Your task to perform on an android device: Open Chrome and go to the settings page Image 0: 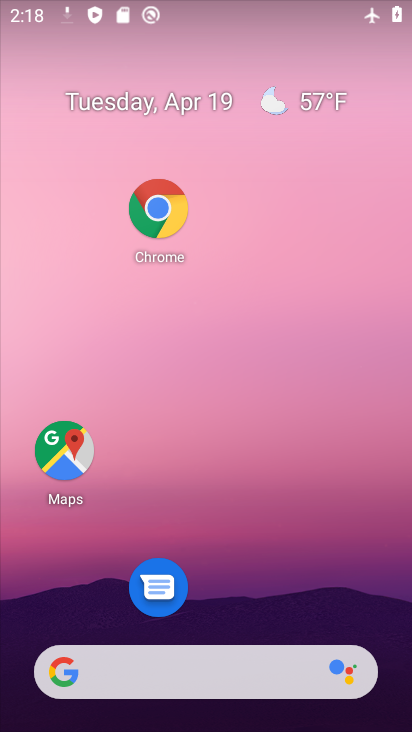
Step 0: drag from (233, 384) to (223, 276)
Your task to perform on an android device: Open Chrome and go to the settings page Image 1: 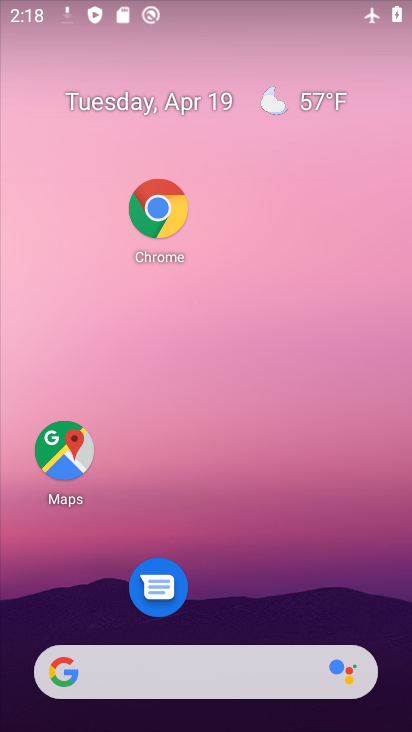
Step 1: click (245, 199)
Your task to perform on an android device: Open Chrome and go to the settings page Image 2: 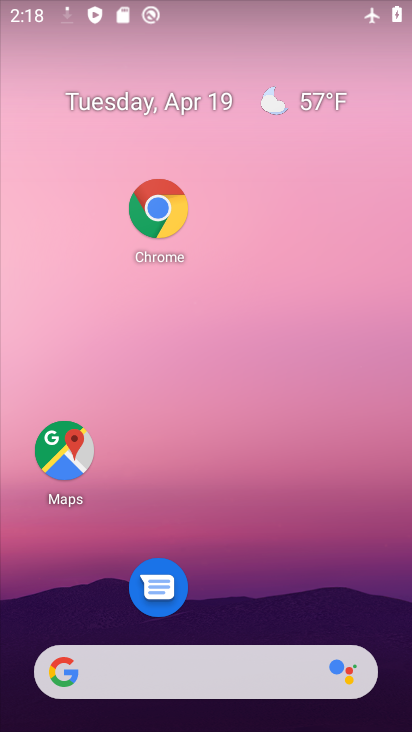
Step 2: drag from (262, 472) to (196, 202)
Your task to perform on an android device: Open Chrome and go to the settings page Image 3: 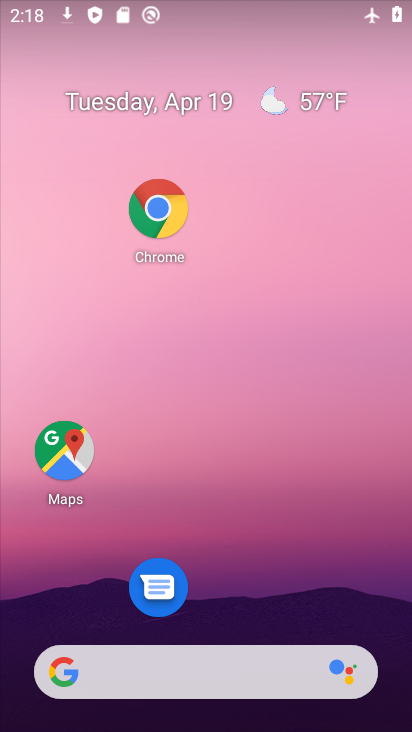
Step 3: drag from (172, 429) to (116, 119)
Your task to perform on an android device: Open Chrome and go to the settings page Image 4: 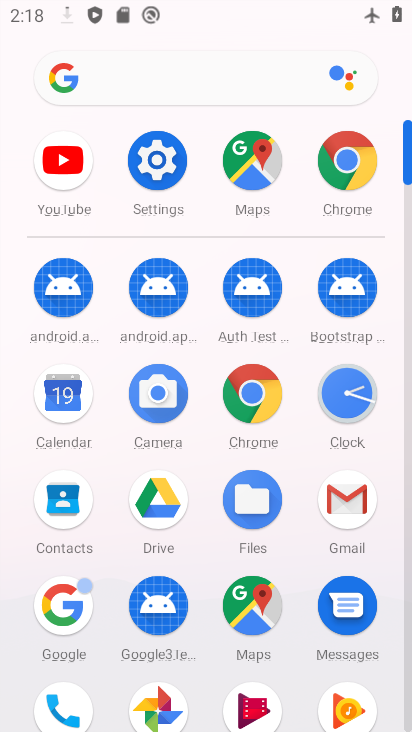
Step 4: click (343, 160)
Your task to perform on an android device: Open Chrome and go to the settings page Image 5: 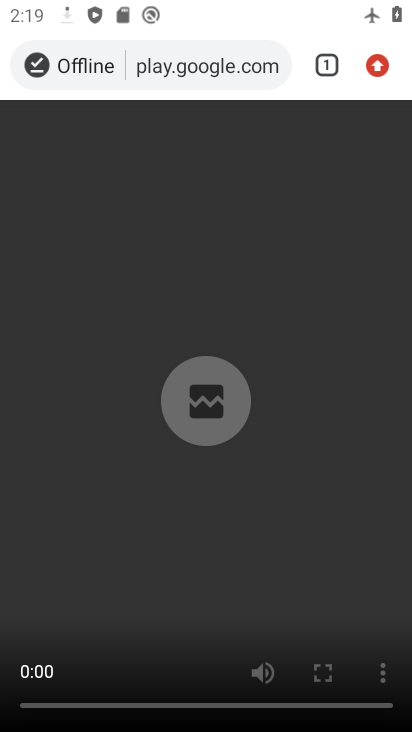
Step 5: press back button
Your task to perform on an android device: Open Chrome and go to the settings page Image 6: 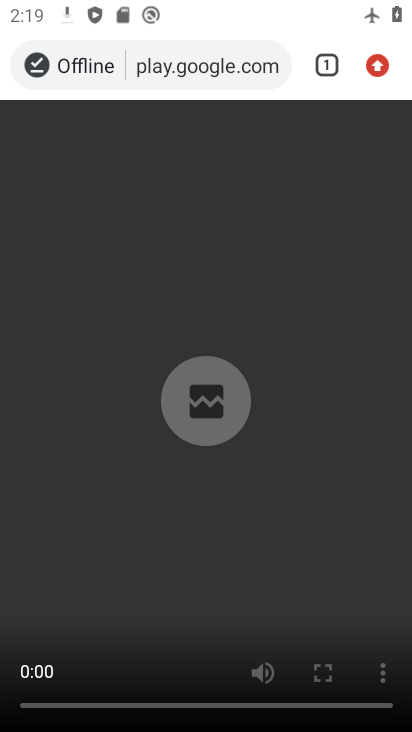
Step 6: press back button
Your task to perform on an android device: Open Chrome and go to the settings page Image 7: 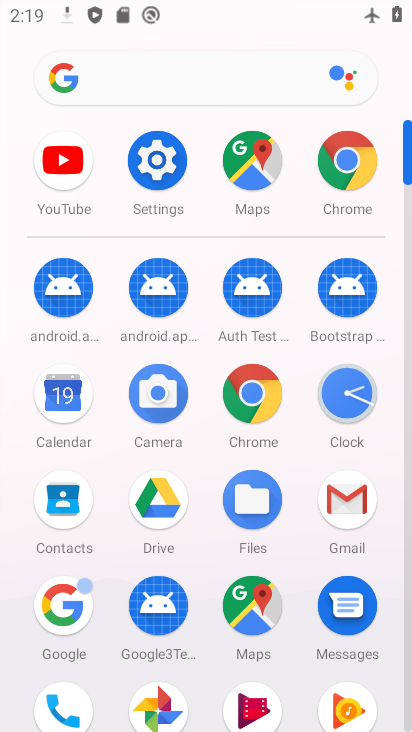
Step 7: click (348, 162)
Your task to perform on an android device: Open Chrome and go to the settings page Image 8: 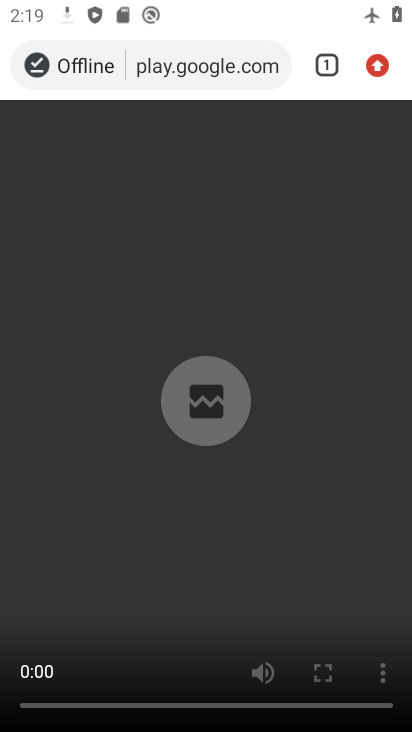
Step 8: press back button
Your task to perform on an android device: Open Chrome and go to the settings page Image 9: 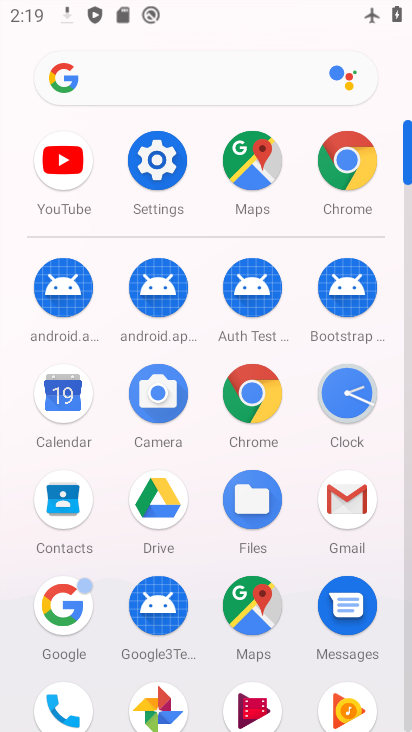
Step 9: click (345, 168)
Your task to perform on an android device: Open Chrome and go to the settings page Image 10: 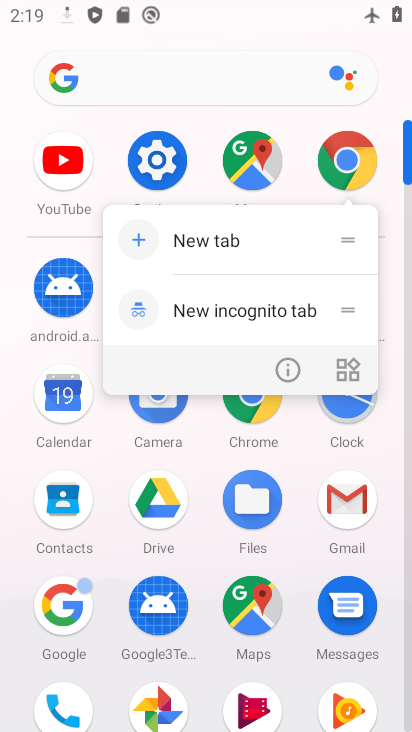
Step 10: click (202, 237)
Your task to perform on an android device: Open Chrome and go to the settings page Image 11: 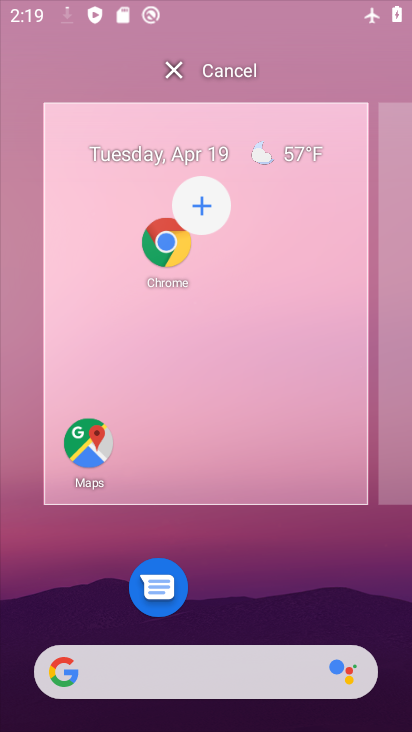
Step 11: click (202, 237)
Your task to perform on an android device: Open Chrome and go to the settings page Image 12: 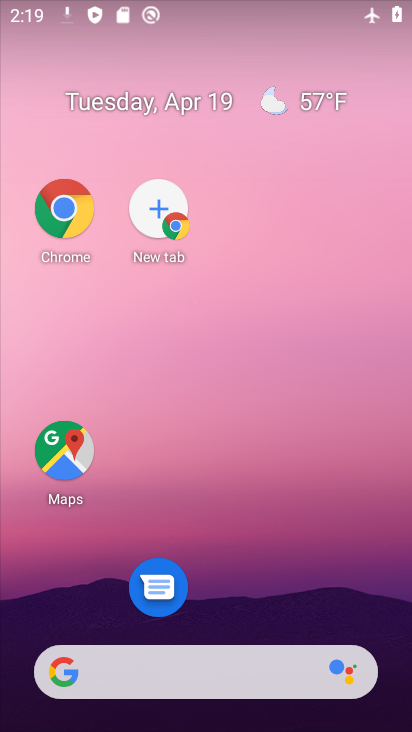
Step 12: drag from (380, 690) to (243, 35)
Your task to perform on an android device: Open Chrome and go to the settings page Image 13: 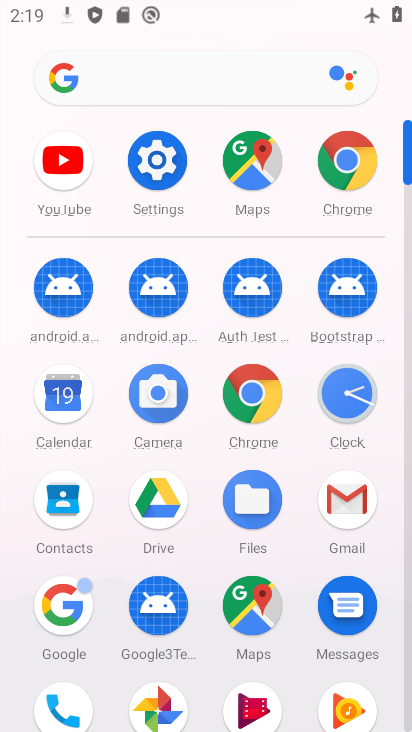
Step 13: click (347, 159)
Your task to perform on an android device: Open Chrome and go to the settings page Image 14: 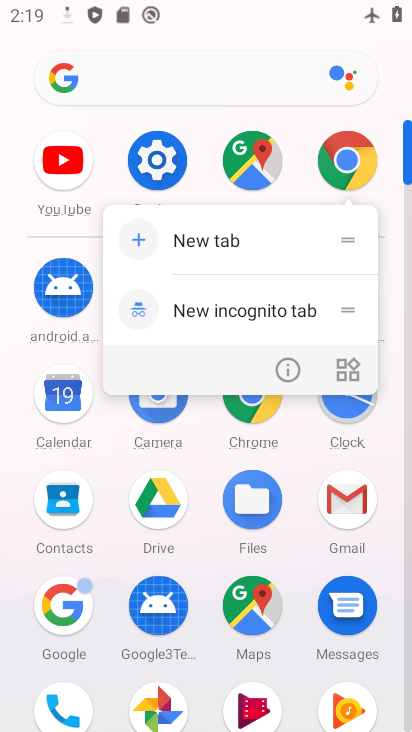
Step 14: click (341, 163)
Your task to perform on an android device: Open Chrome and go to the settings page Image 15: 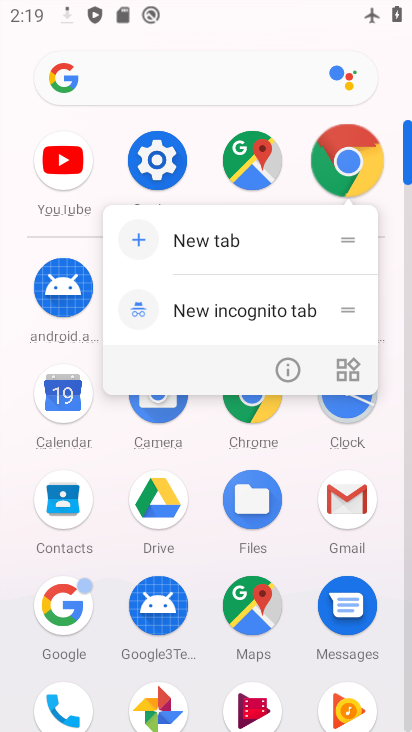
Step 15: click (341, 163)
Your task to perform on an android device: Open Chrome and go to the settings page Image 16: 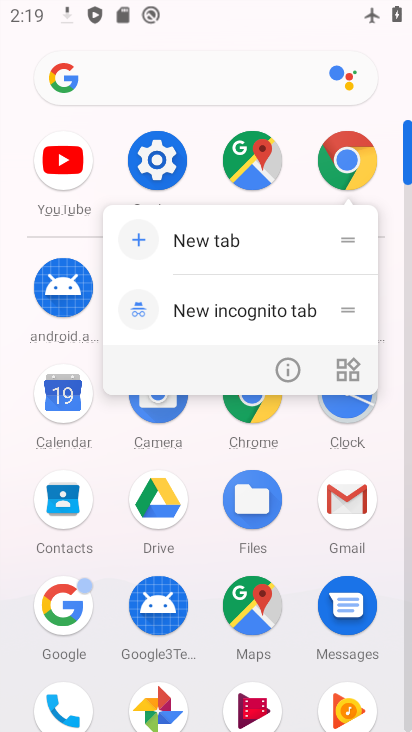
Step 16: click (344, 153)
Your task to perform on an android device: Open Chrome and go to the settings page Image 17: 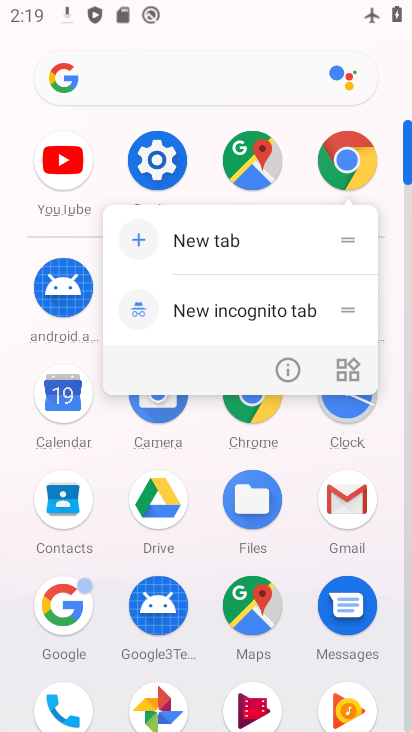
Step 17: click (344, 153)
Your task to perform on an android device: Open Chrome and go to the settings page Image 18: 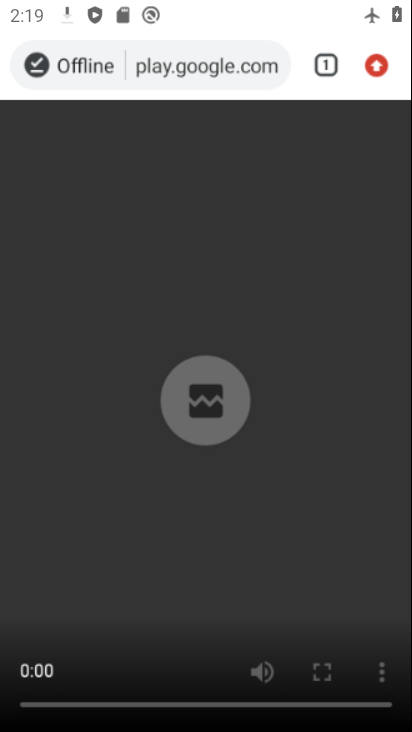
Step 18: click (344, 153)
Your task to perform on an android device: Open Chrome and go to the settings page Image 19: 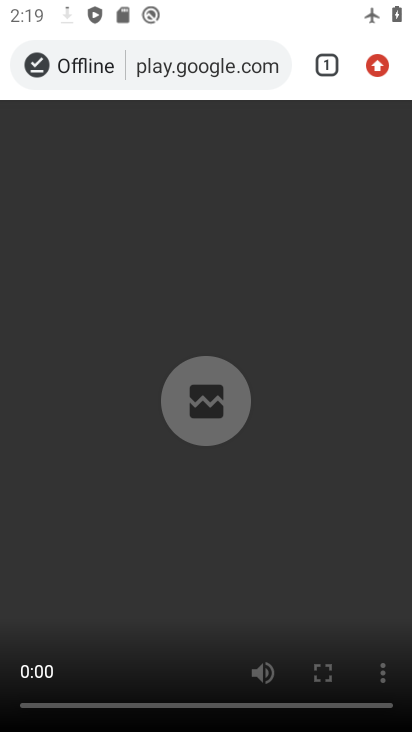
Step 19: click (377, 67)
Your task to perform on an android device: Open Chrome and go to the settings page Image 20: 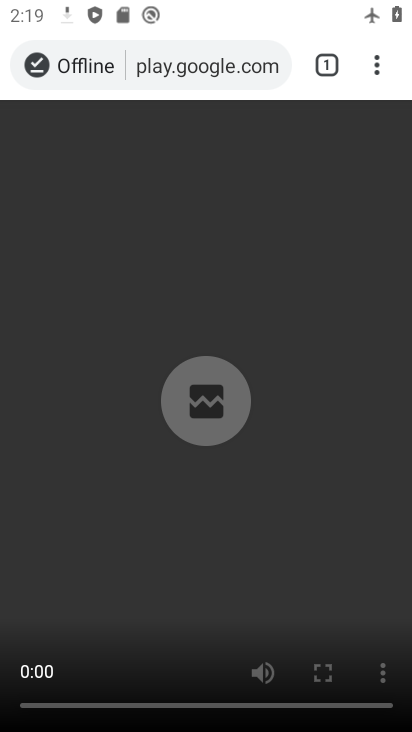
Step 20: click (368, 61)
Your task to perform on an android device: Open Chrome and go to the settings page Image 21: 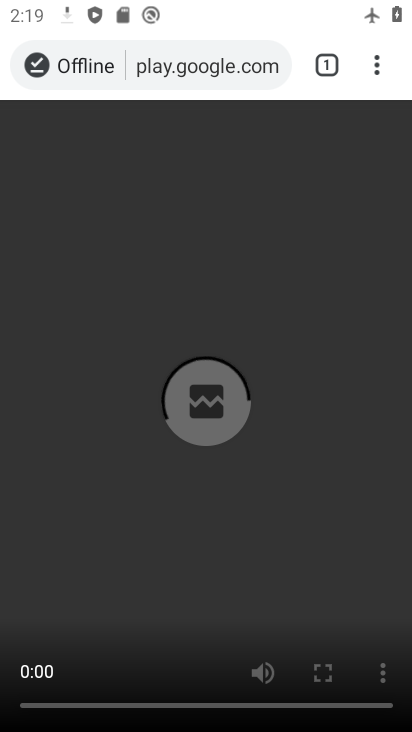
Step 21: click (367, 67)
Your task to perform on an android device: Open Chrome and go to the settings page Image 22: 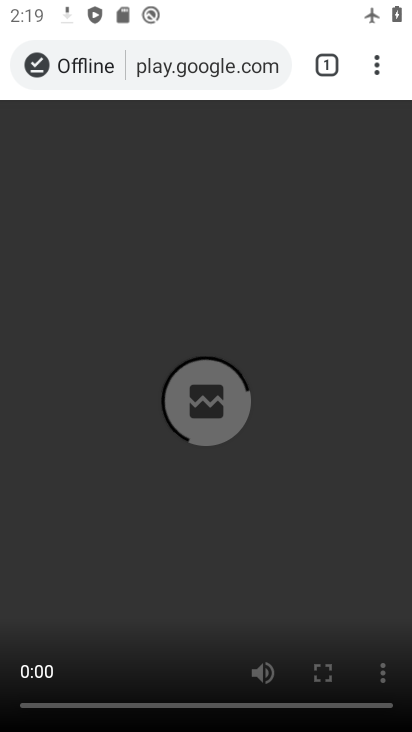
Step 22: click (377, 58)
Your task to perform on an android device: Open Chrome and go to the settings page Image 23: 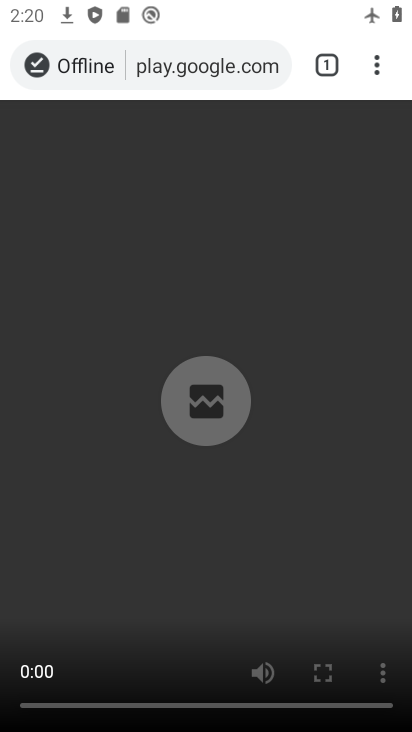
Step 23: click (373, 67)
Your task to perform on an android device: Open Chrome and go to the settings page Image 24: 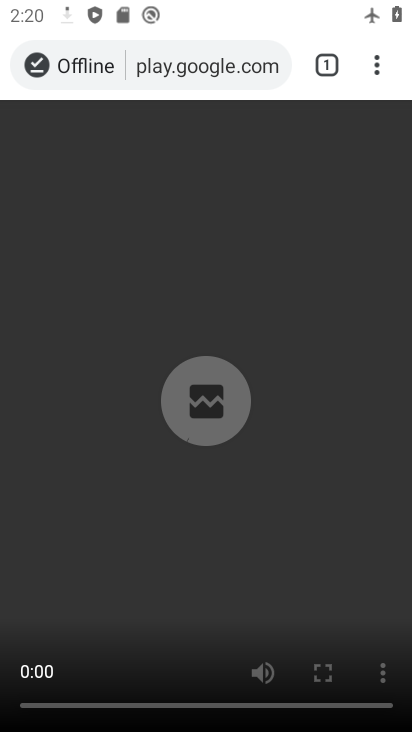
Step 24: click (373, 67)
Your task to perform on an android device: Open Chrome and go to the settings page Image 25: 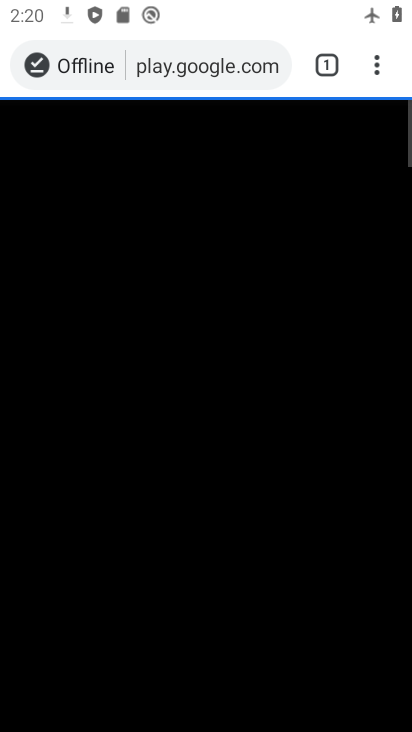
Step 25: click (373, 67)
Your task to perform on an android device: Open Chrome and go to the settings page Image 26: 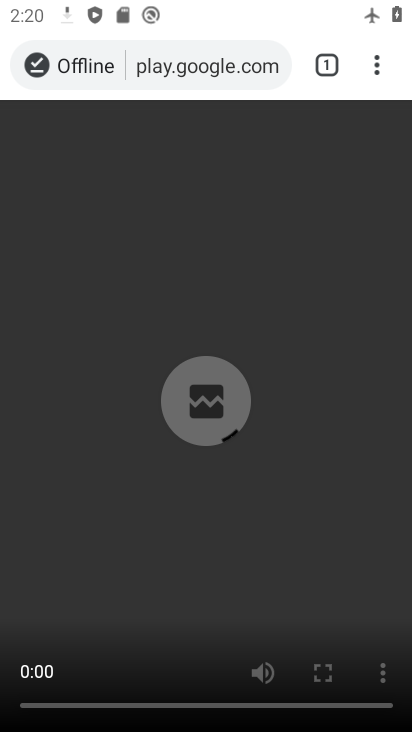
Step 26: click (368, 64)
Your task to perform on an android device: Open Chrome and go to the settings page Image 27: 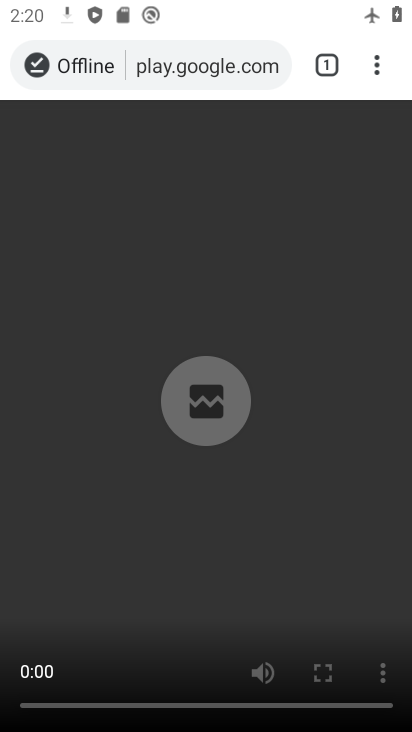
Step 27: click (374, 66)
Your task to perform on an android device: Open Chrome and go to the settings page Image 28: 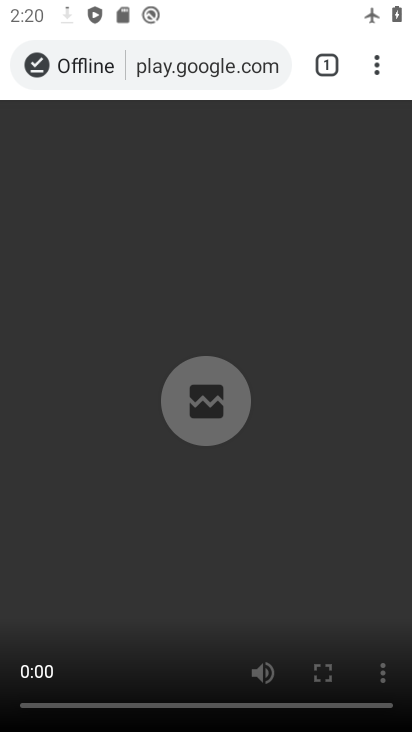
Step 28: click (377, 60)
Your task to perform on an android device: Open Chrome and go to the settings page Image 29: 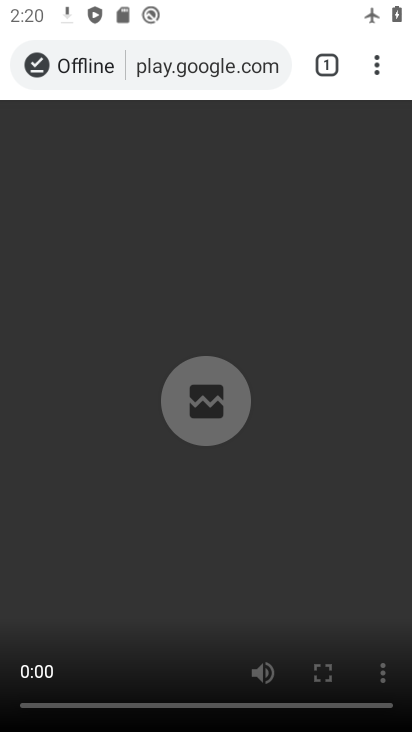
Step 29: click (369, 64)
Your task to perform on an android device: Open Chrome and go to the settings page Image 30: 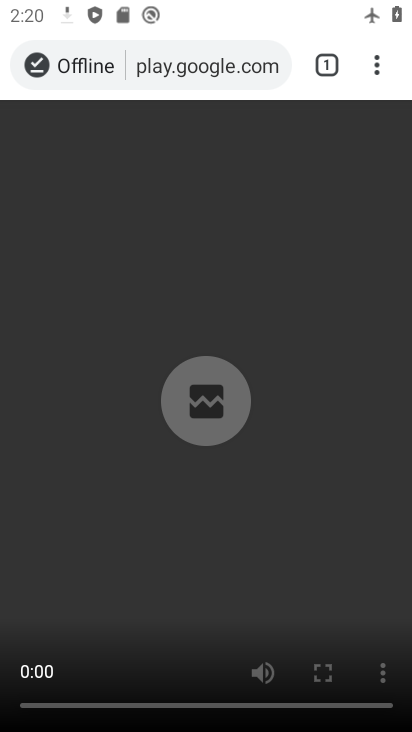
Step 30: click (381, 69)
Your task to perform on an android device: Open Chrome and go to the settings page Image 31: 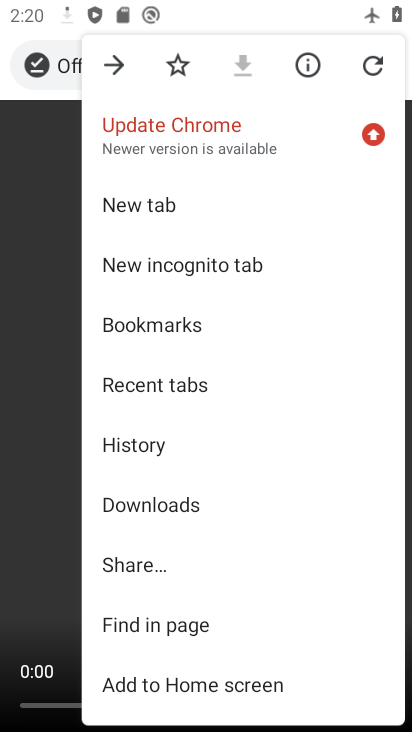
Step 31: drag from (241, 577) to (232, 285)
Your task to perform on an android device: Open Chrome and go to the settings page Image 32: 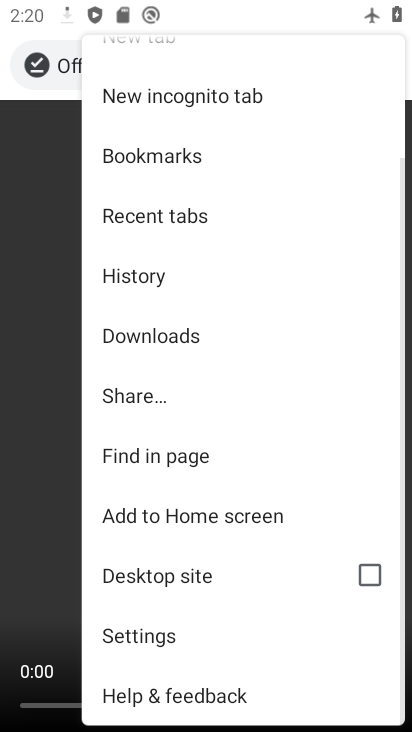
Step 32: click (127, 633)
Your task to perform on an android device: Open Chrome and go to the settings page Image 33: 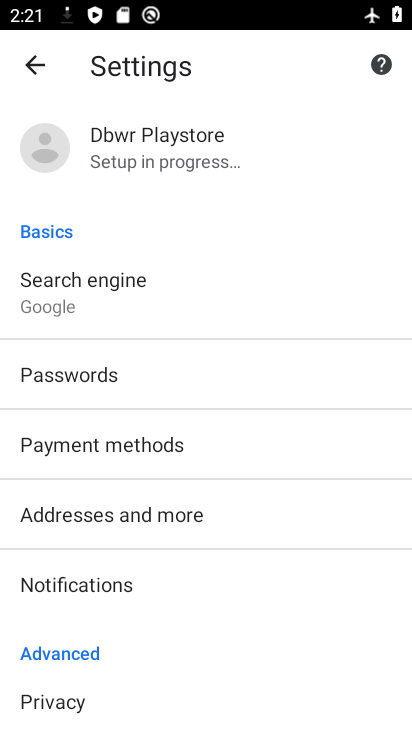
Step 33: task complete